Your task to perform on an android device: Turn on the flashlight Image 0: 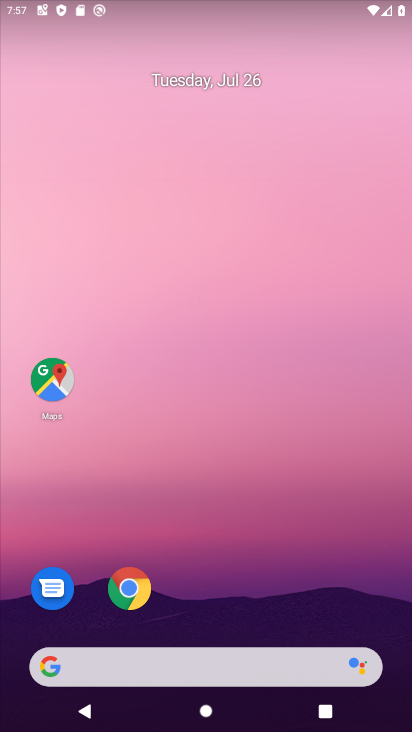
Step 0: drag from (275, 418) to (301, 63)
Your task to perform on an android device: Turn on the flashlight Image 1: 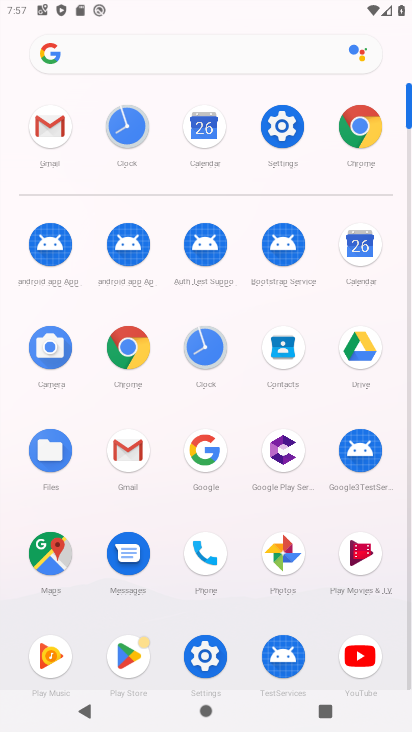
Step 1: task complete